Your task to perform on an android device: Go to Google Image 0: 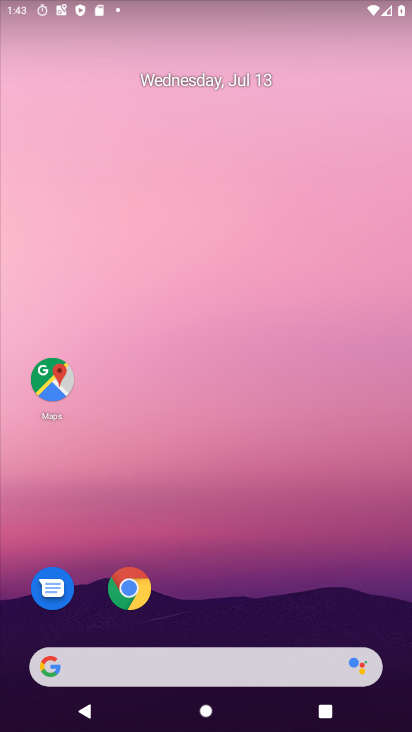
Step 0: drag from (196, 650) to (278, 422)
Your task to perform on an android device: Go to Google Image 1: 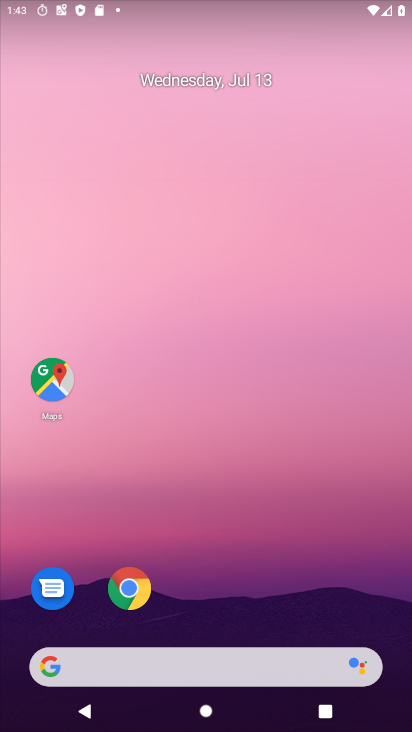
Step 1: drag from (194, 640) to (236, 396)
Your task to perform on an android device: Go to Google Image 2: 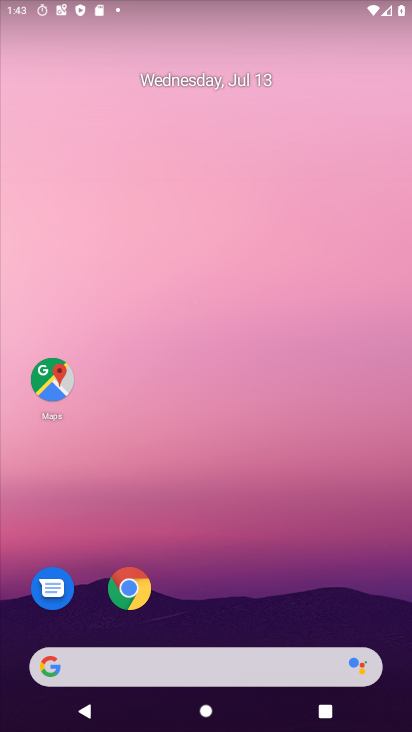
Step 2: click (256, 147)
Your task to perform on an android device: Go to Google Image 3: 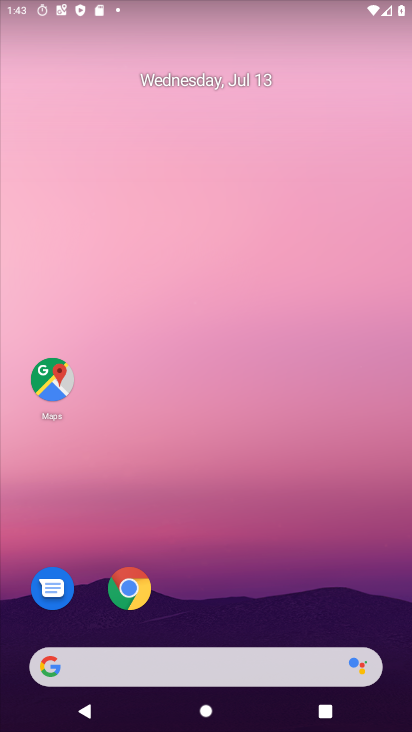
Step 3: drag from (225, 590) to (288, 267)
Your task to perform on an android device: Go to Google Image 4: 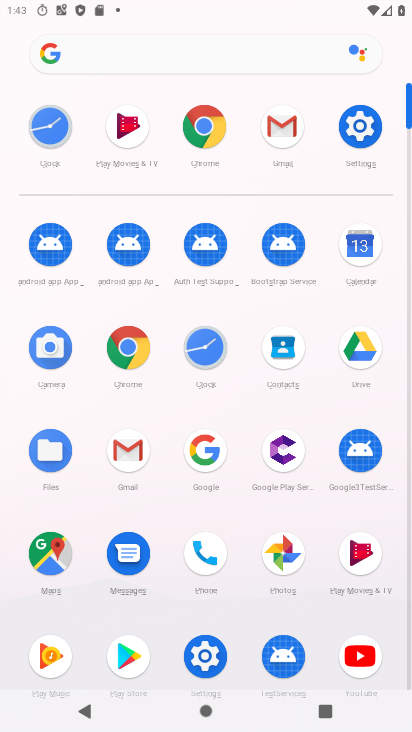
Step 4: click (217, 434)
Your task to perform on an android device: Go to Google Image 5: 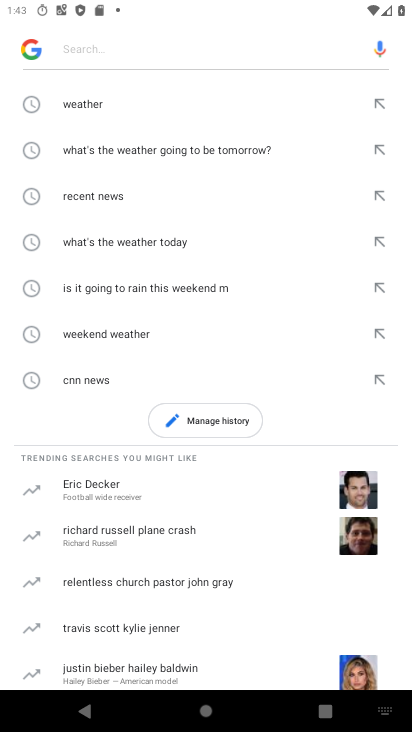
Step 5: task complete